Your task to perform on an android device: toggle improve location accuracy Image 0: 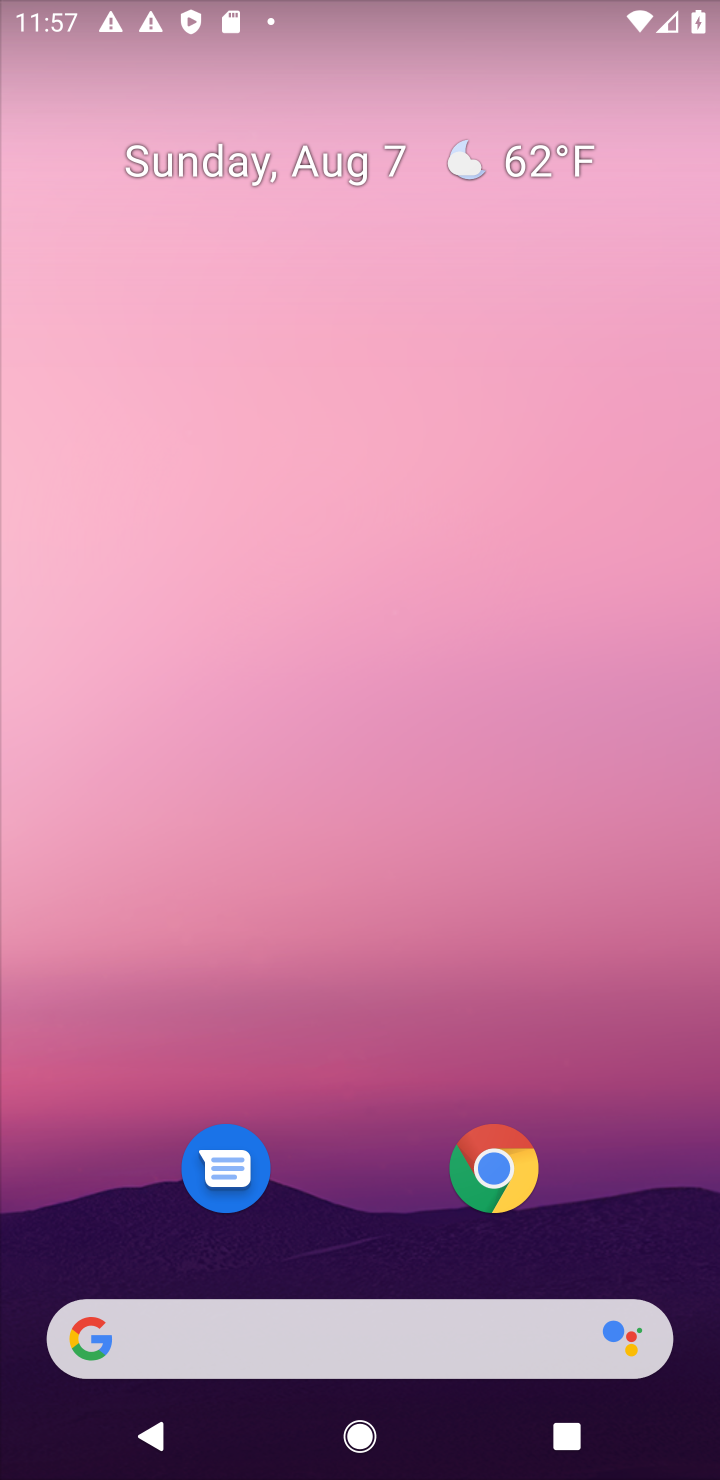
Step 0: drag from (393, 1285) to (427, 12)
Your task to perform on an android device: toggle improve location accuracy Image 1: 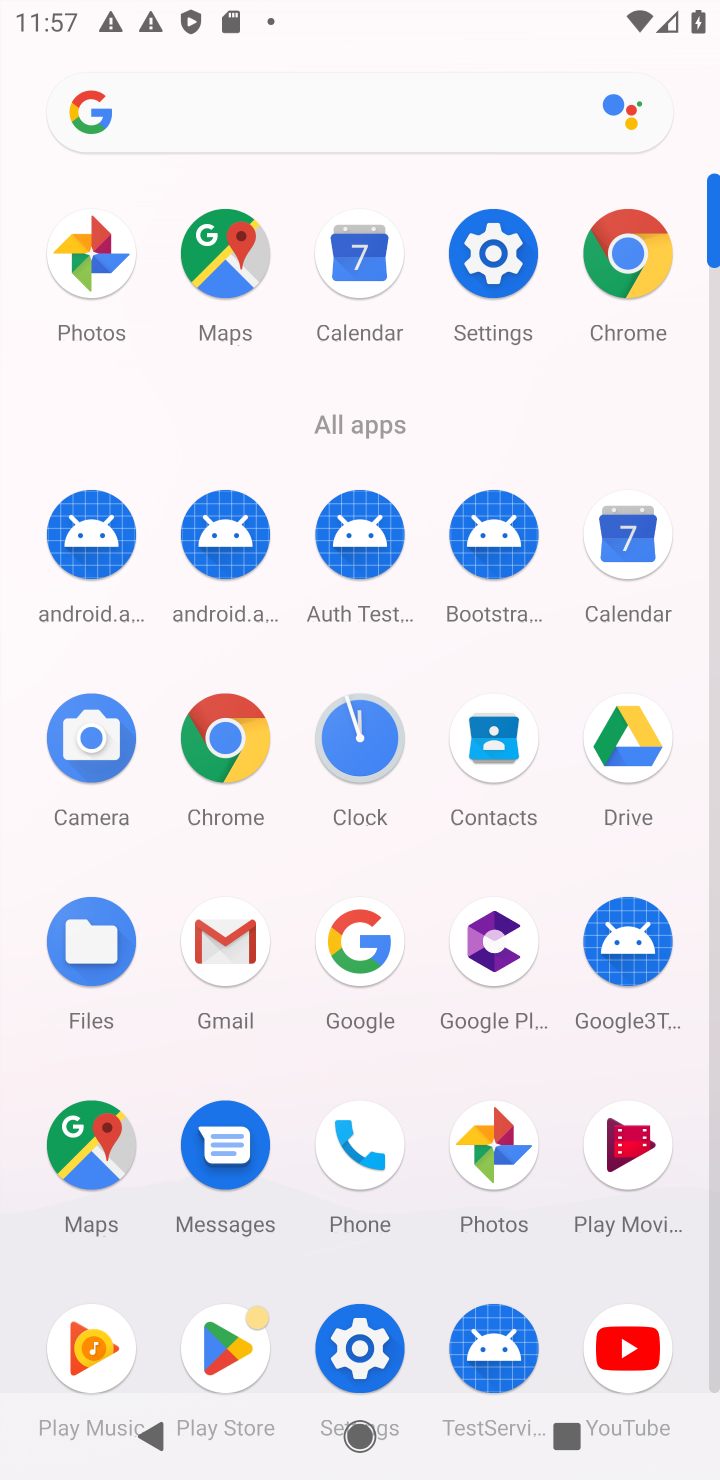
Step 1: click (489, 238)
Your task to perform on an android device: toggle improve location accuracy Image 2: 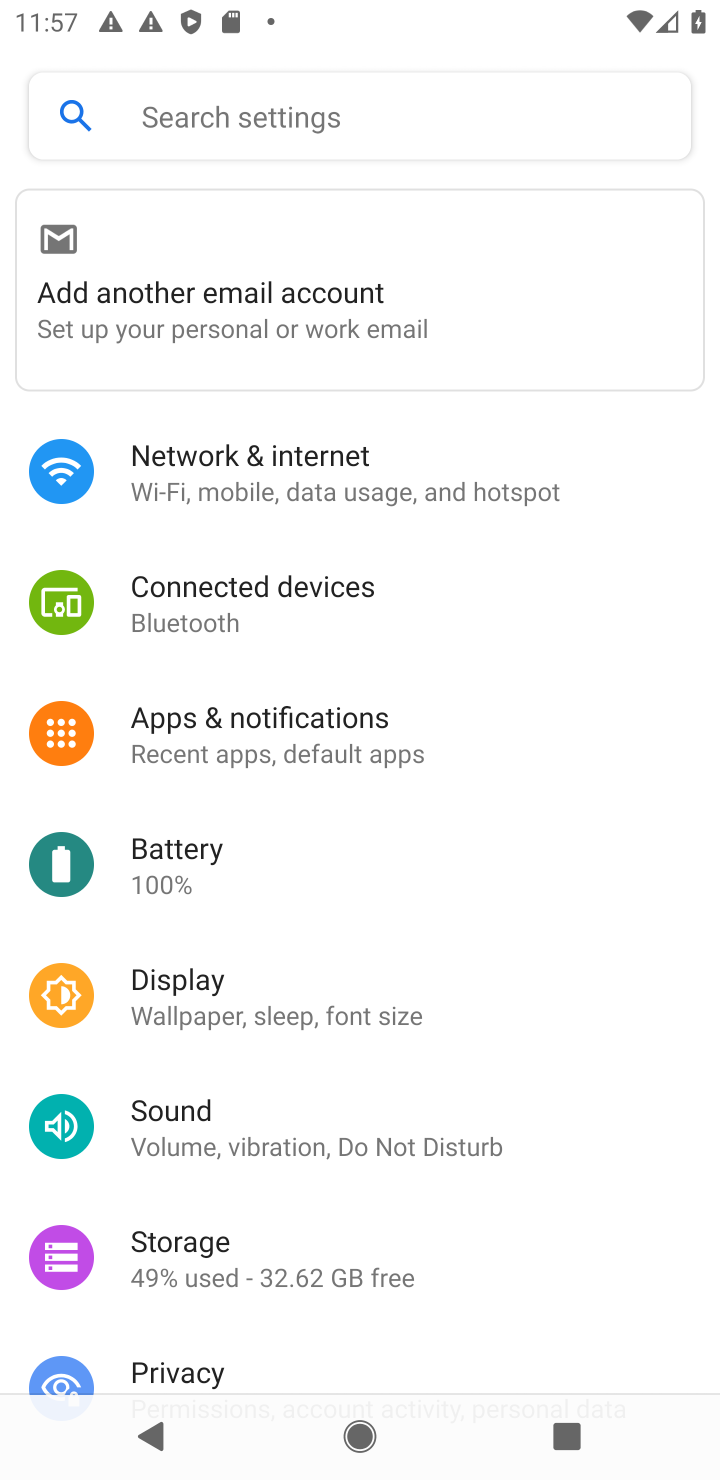
Step 2: drag from (263, 1280) to (286, 562)
Your task to perform on an android device: toggle improve location accuracy Image 3: 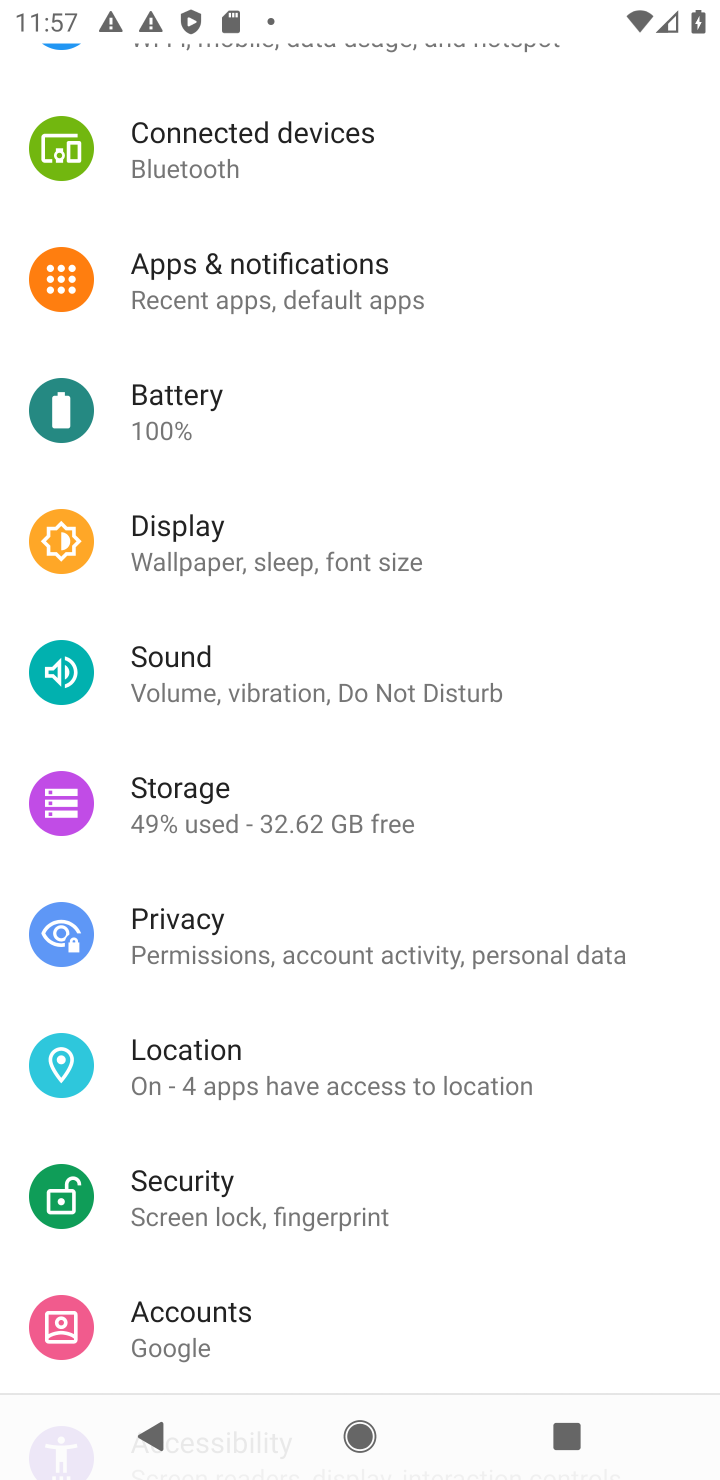
Step 3: click (281, 1067)
Your task to perform on an android device: toggle improve location accuracy Image 4: 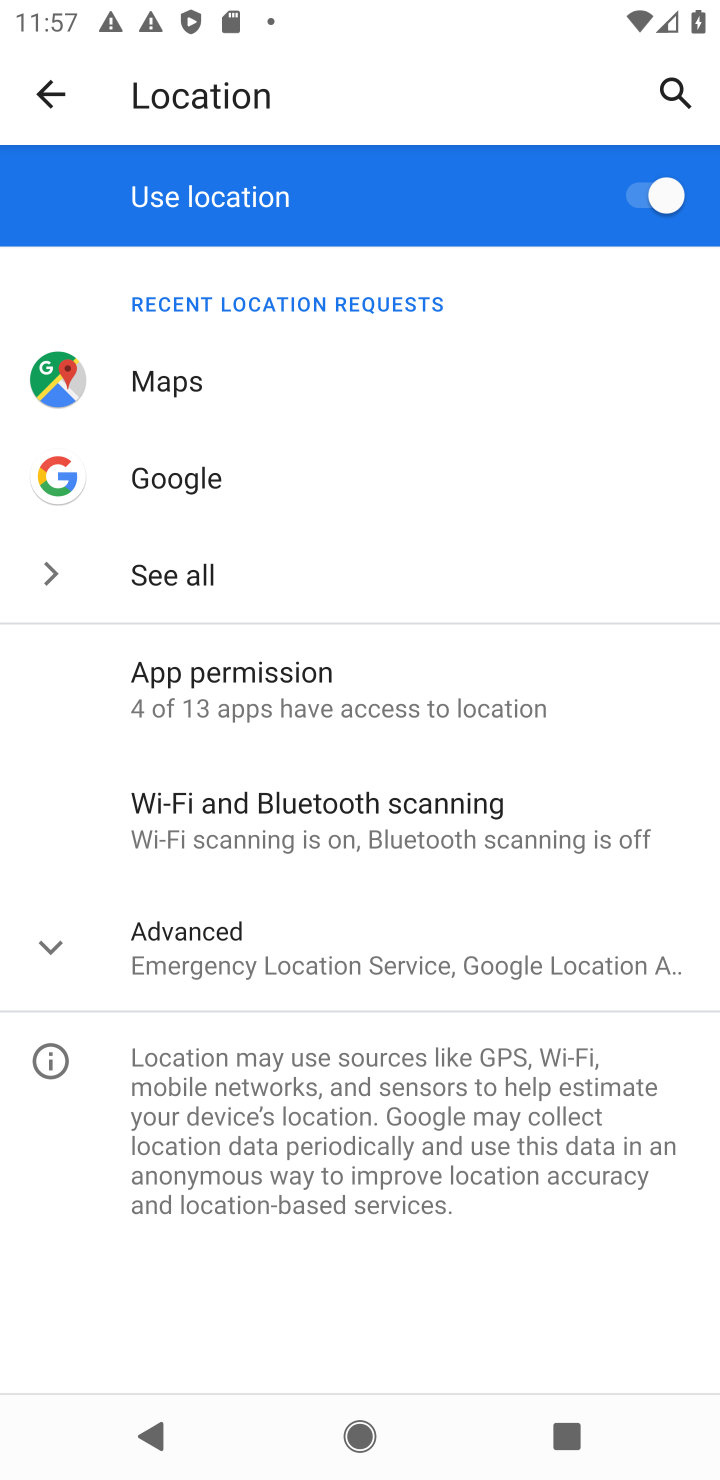
Step 4: click (431, 990)
Your task to perform on an android device: toggle improve location accuracy Image 5: 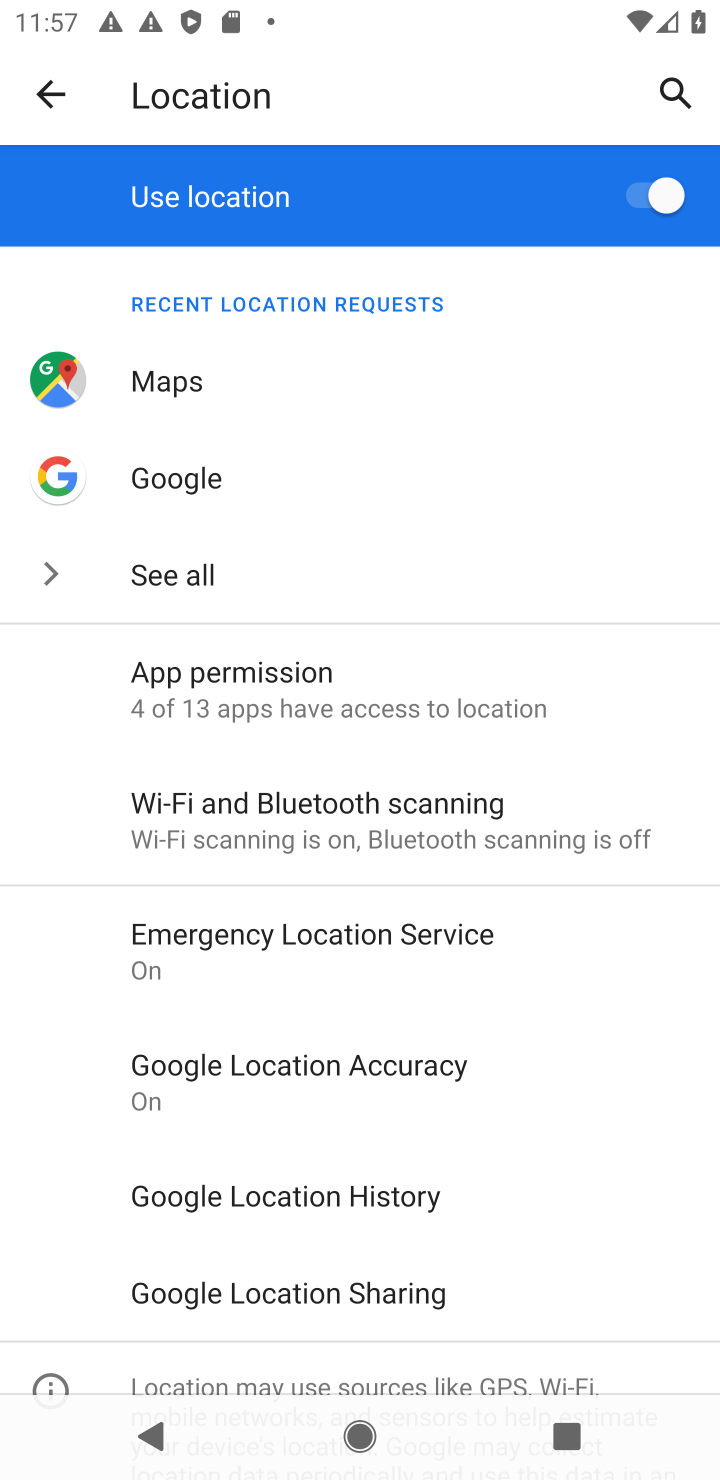
Step 5: click (407, 1082)
Your task to perform on an android device: toggle improve location accuracy Image 6: 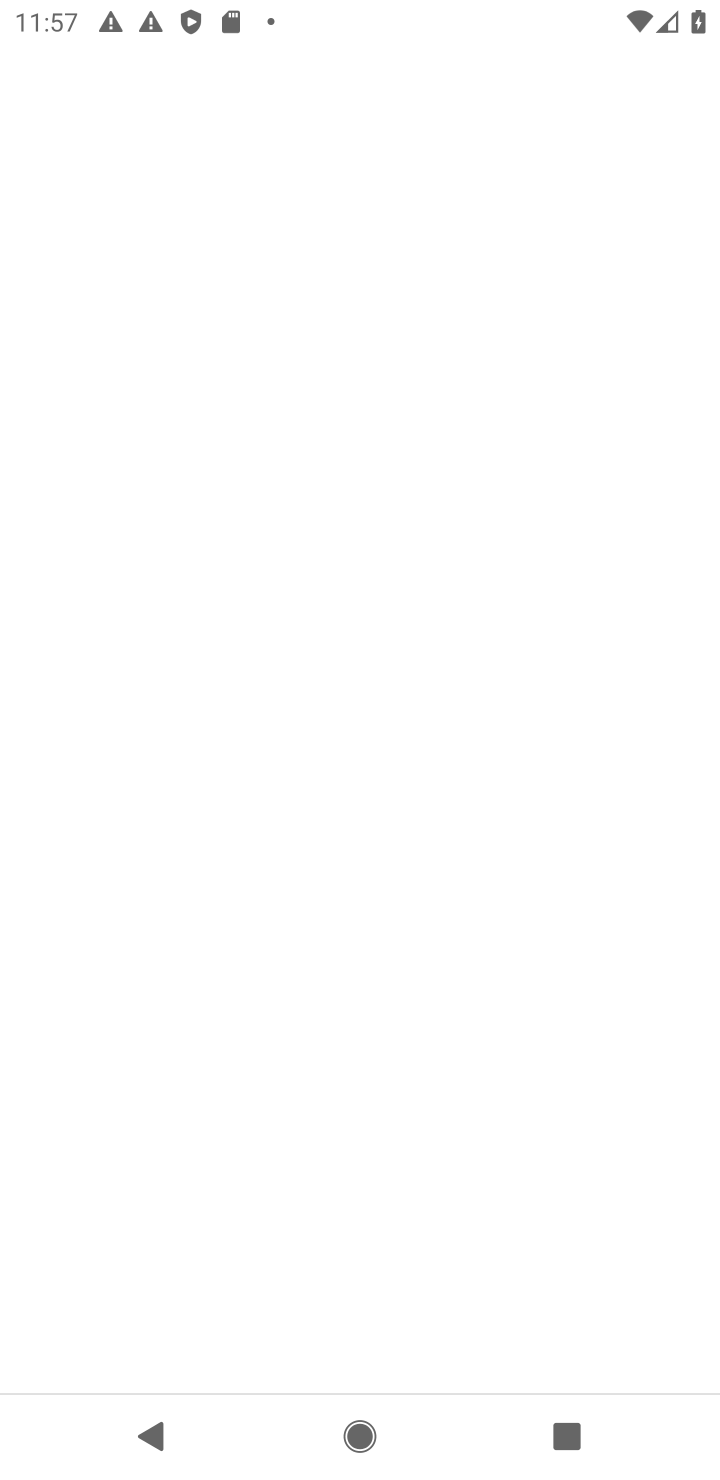
Step 6: task complete